Your task to perform on an android device: open the mobile data screen to see how much data has been used Image 0: 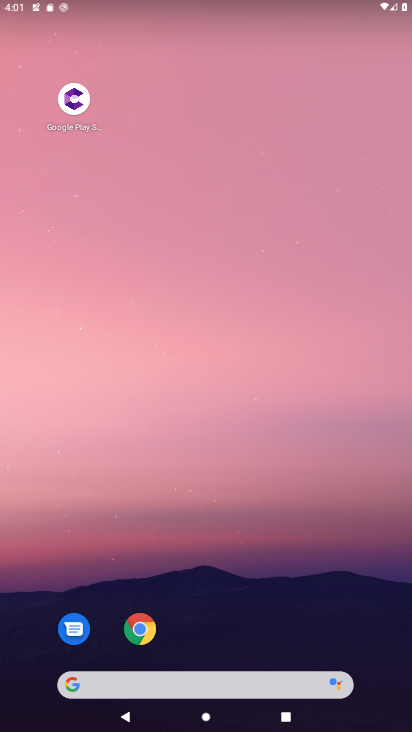
Step 0: drag from (192, 635) to (198, 167)
Your task to perform on an android device: open the mobile data screen to see how much data has been used Image 1: 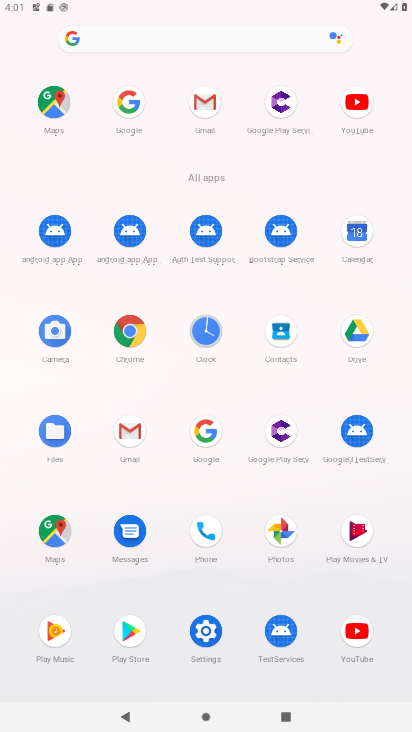
Step 1: click (203, 645)
Your task to perform on an android device: open the mobile data screen to see how much data has been used Image 2: 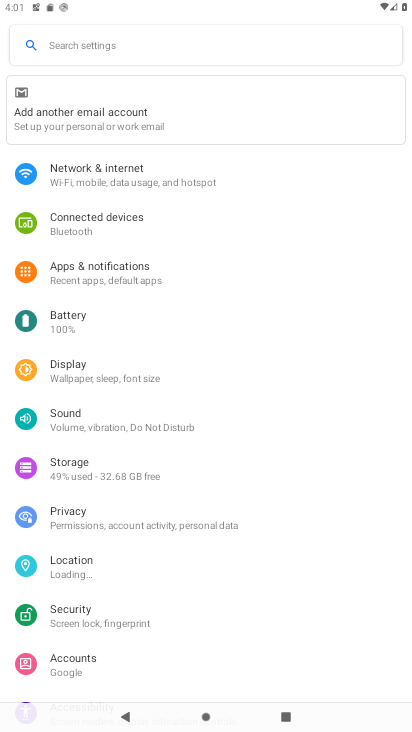
Step 2: click (114, 191)
Your task to perform on an android device: open the mobile data screen to see how much data has been used Image 3: 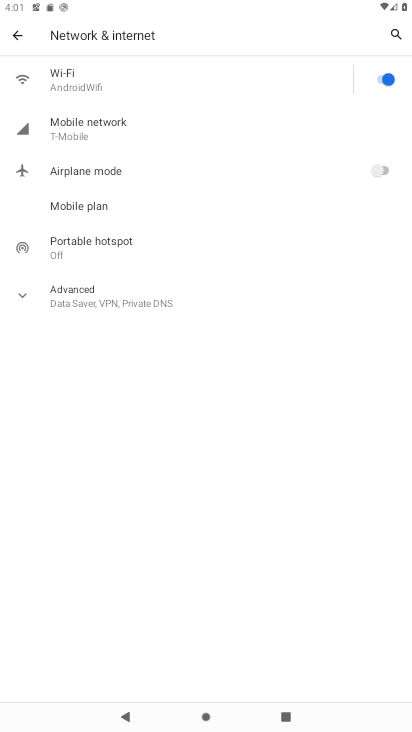
Step 3: click (182, 138)
Your task to perform on an android device: open the mobile data screen to see how much data has been used Image 4: 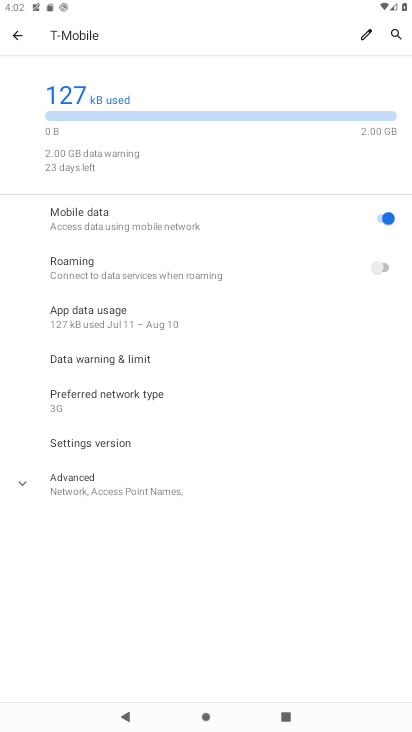
Step 4: click (154, 316)
Your task to perform on an android device: open the mobile data screen to see how much data has been used Image 5: 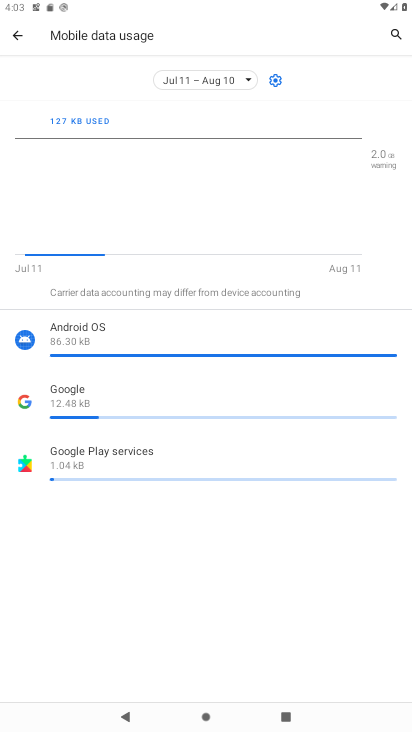
Step 5: task complete